Your task to perform on an android device: open a bookmark in the chrome app Image 0: 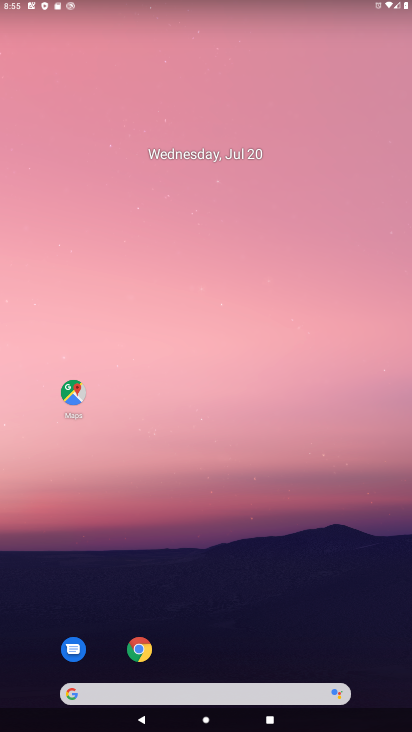
Step 0: click (139, 652)
Your task to perform on an android device: open a bookmark in the chrome app Image 1: 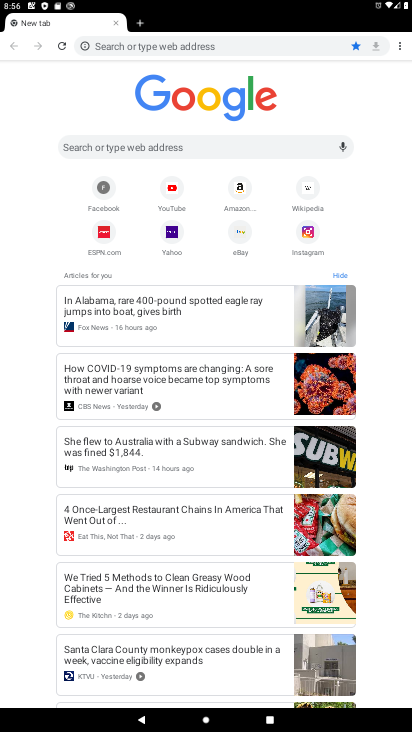
Step 1: click (401, 50)
Your task to perform on an android device: open a bookmark in the chrome app Image 2: 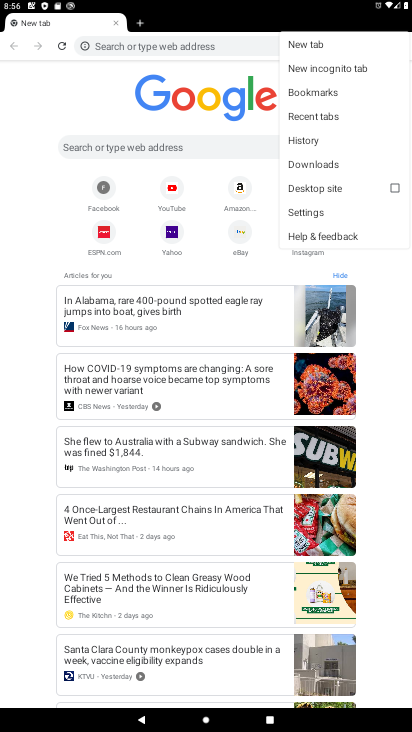
Step 2: click (300, 90)
Your task to perform on an android device: open a bookmark in the chrome app Image 3: 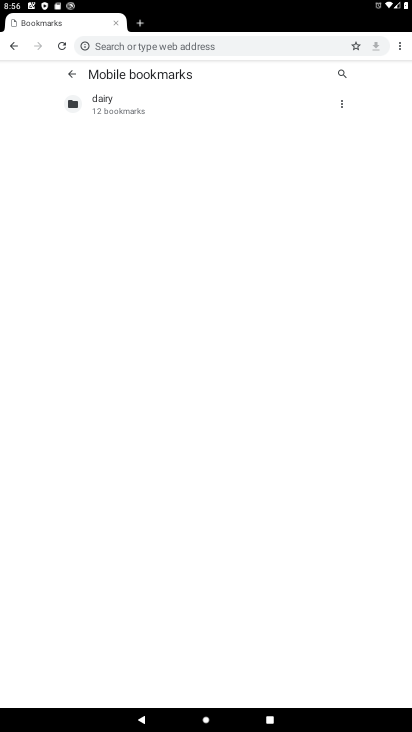
Step 3: task complete